Your task to perform on an android device: Go to privacy settings Image 0: 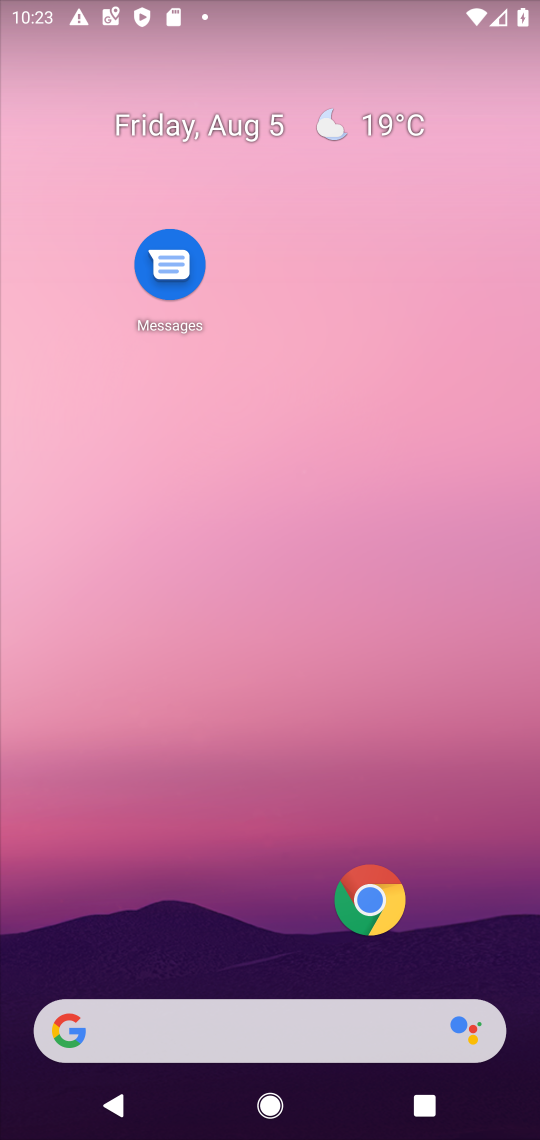
Step 0: drag from (270, 911) to (275, 290)
Your task to perform on an android device: Go to privacy settings Image 1: 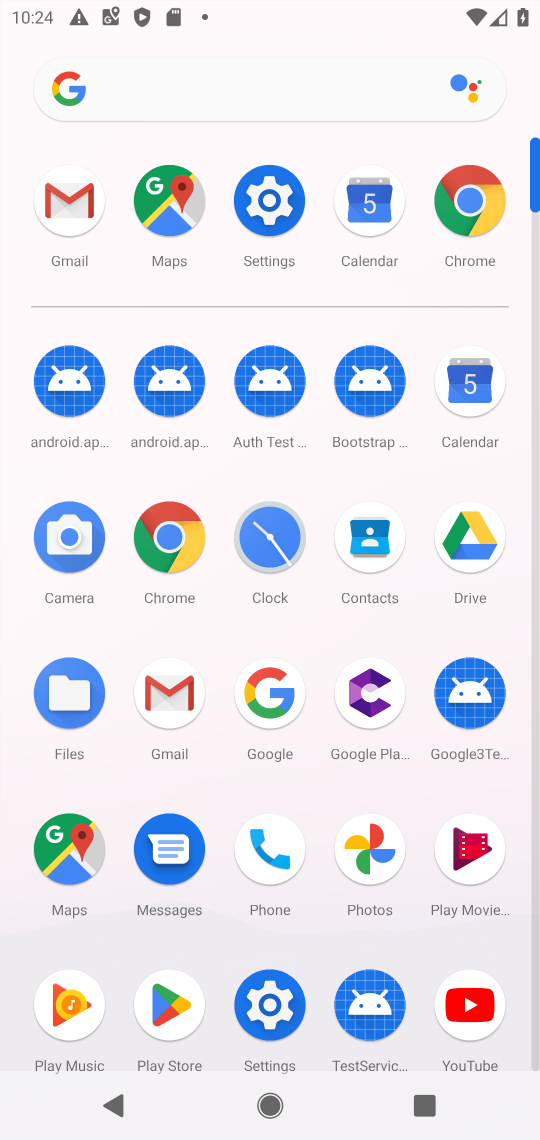
Step 1: click (284, 979)
Your task to perform on an android device: Go to privacy settings Image 2: 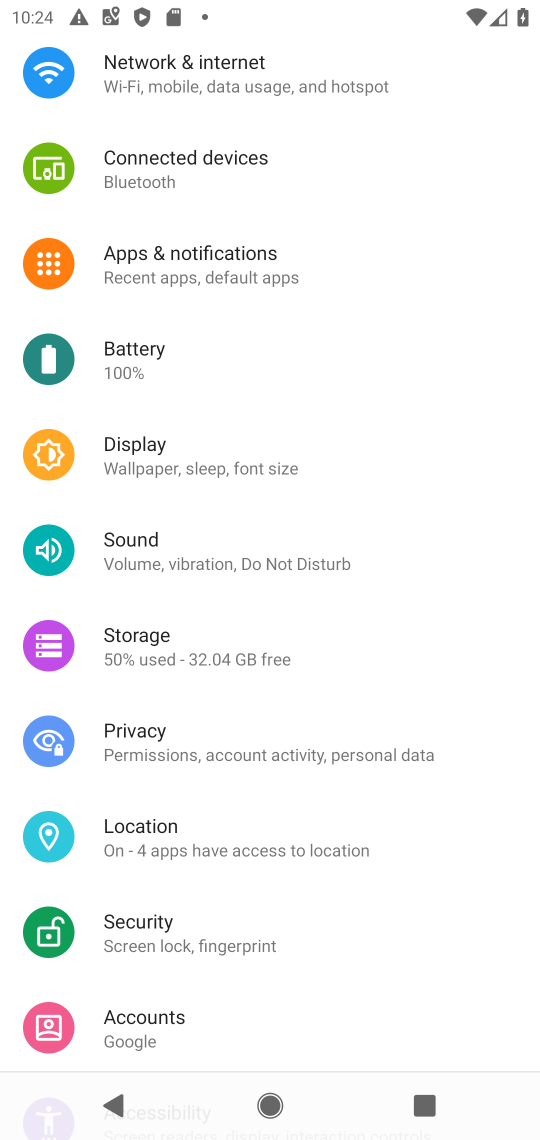
Step 2: click (127, 740)
Your task to perform on an android device: Go to privacy settings Image 3: 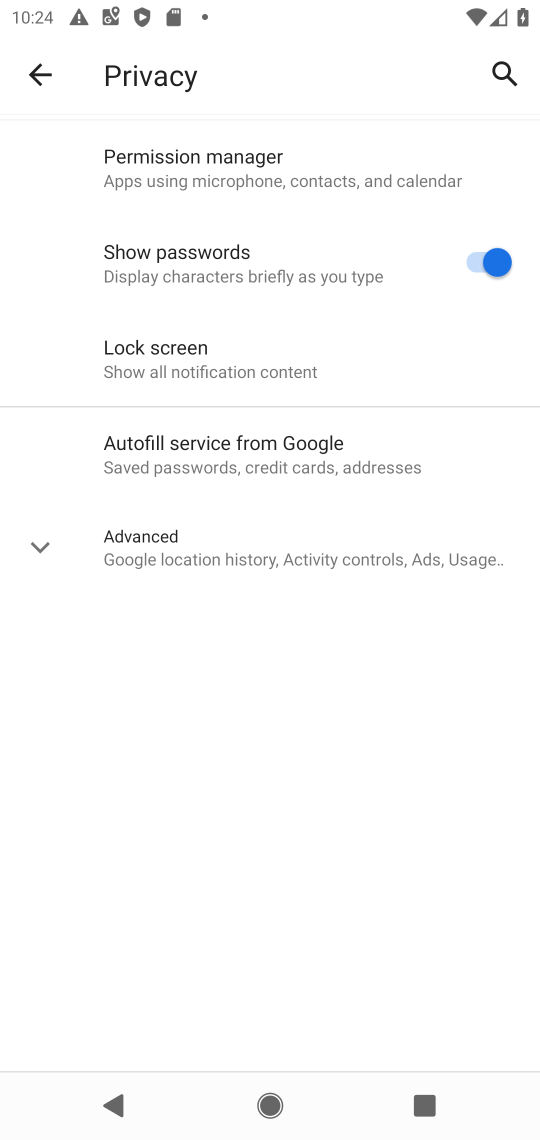
Step 3: task complete